Your task to perform on an android device: Show me recent news Image 0: 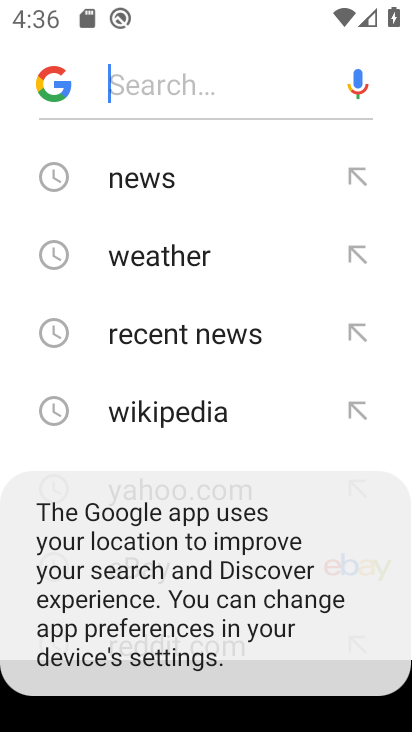
Step 0: press back button
Your task to perform on an android device: Show me recent news Image 1: 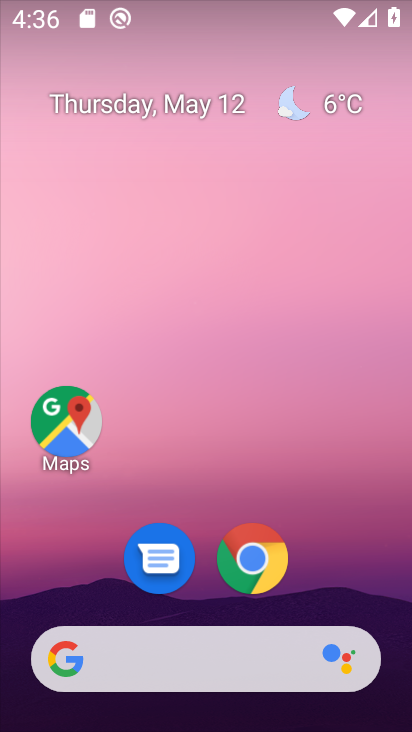
Step 1: drag from (381, 585) to (200, 29)
Your task to perform on an android device: Show me recent news Image 2: 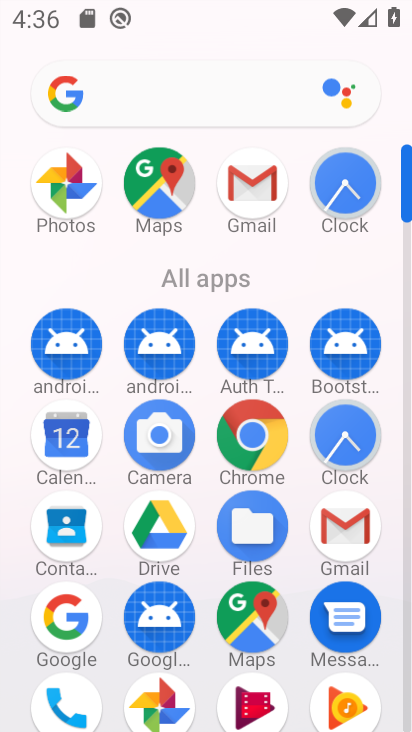
Step 2: drag from (0, 540) to (16, 202)
Your task to perform on an android device: Show me recent news Image 3: 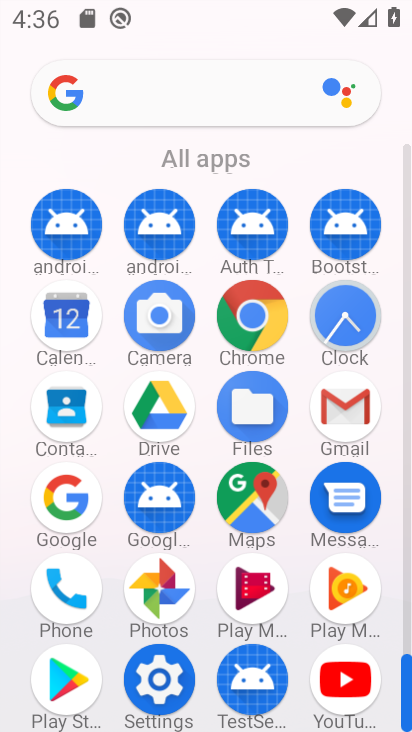
Step 3: drag from (23, 548) to (36, 227)
Your task to perform on an android device: Show me recent news Image 4: 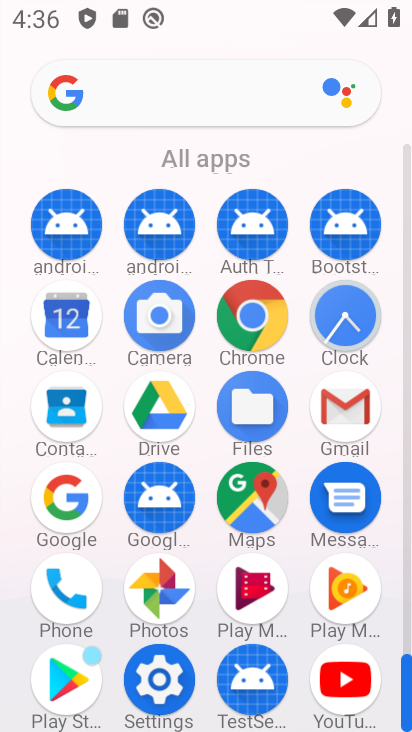
Step 4: drag from (13, 519) to (13, 5)
Your task to perform on an android device: Show me recent news Image 5: 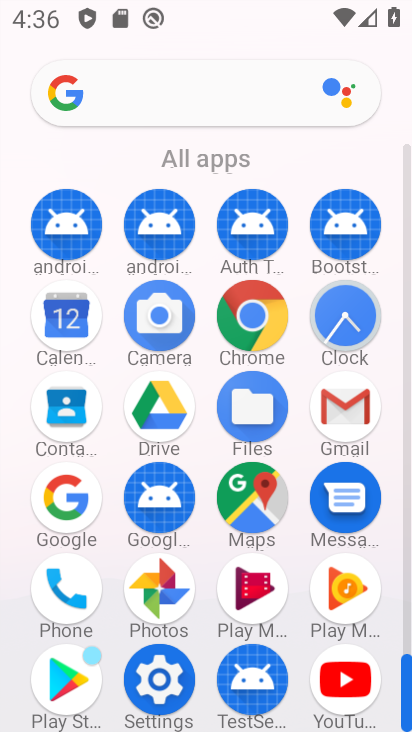
Step 5: drag from (18, 524) to (18, 284)
Your task to perform on an android device: Show me recent news Image 6: 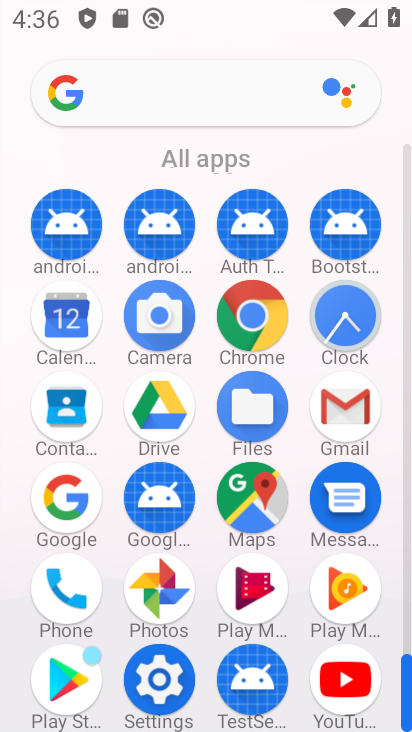
Step 6: click (256, 308)
Your task to perform on an android device: Show me recent news Image 7: 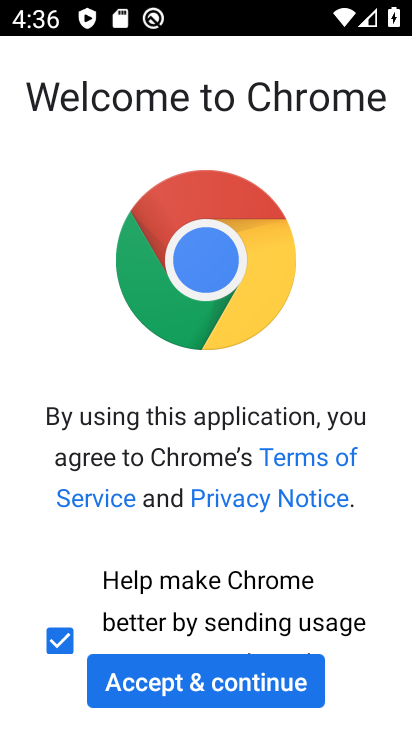
Step 7: click (226, 674)
Your task to perform on an android device: Show me recent news Image 8: 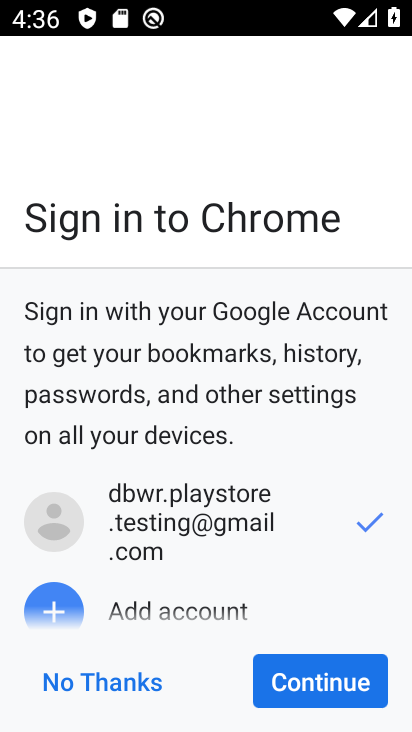
Step 8: click (288, 679)
Your task to perform on an android device: Show me recent news Image 9: 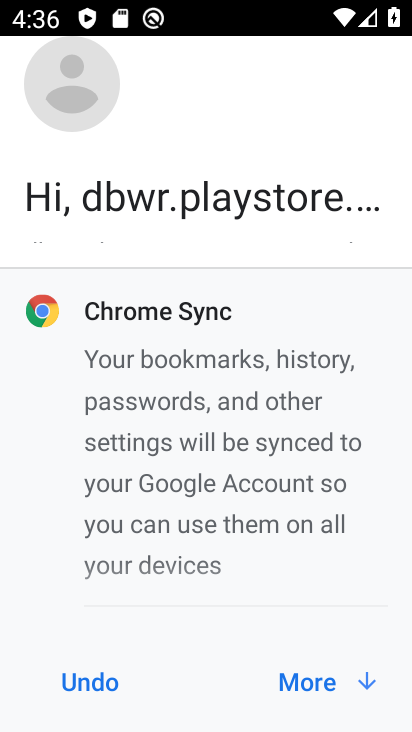
Step 9: click (304, 692)
Your task to perform on an android device: Show me recent news Image 10: 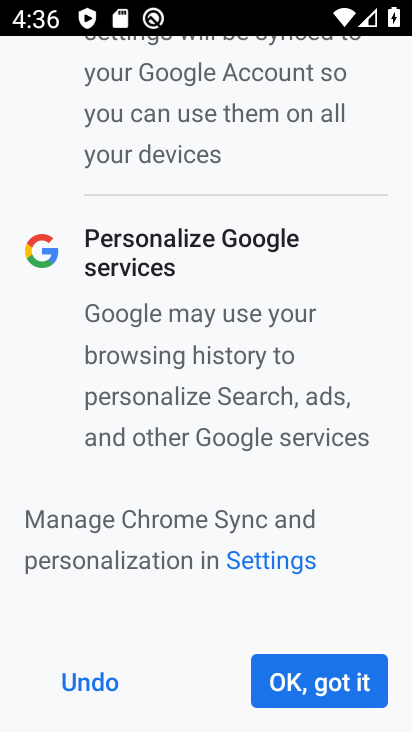
Step 10: click (309, 677)
Your task to perform on an android device: Show me recent news Image 11: 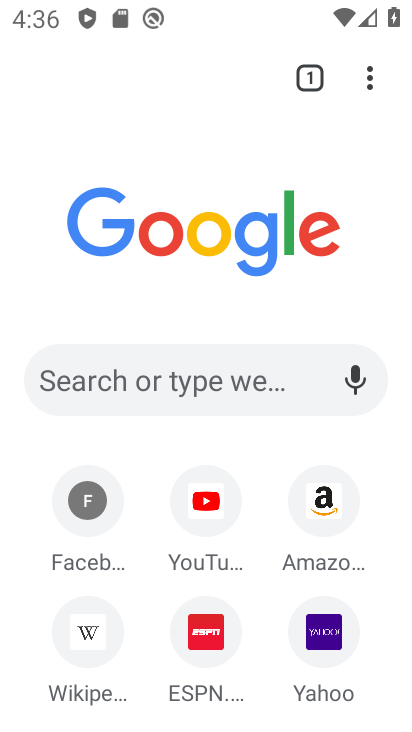
Step 11: click (210, 353)
Your task to perform on an android device: Show me recent news Image 12: 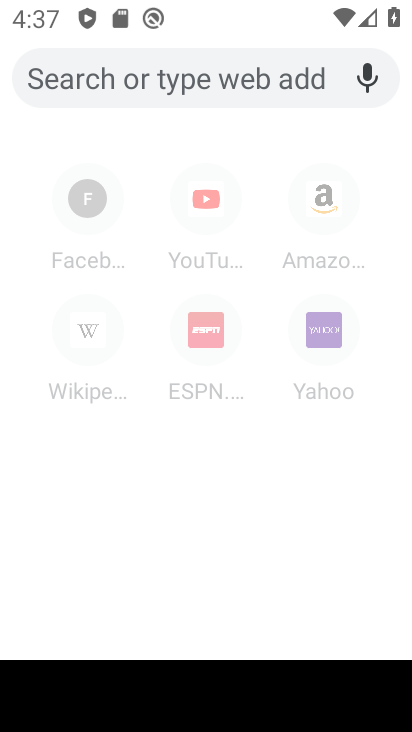
Step 12: type "Show me recent news"
Your task to perform on an android device: Show me recent news Image 13: 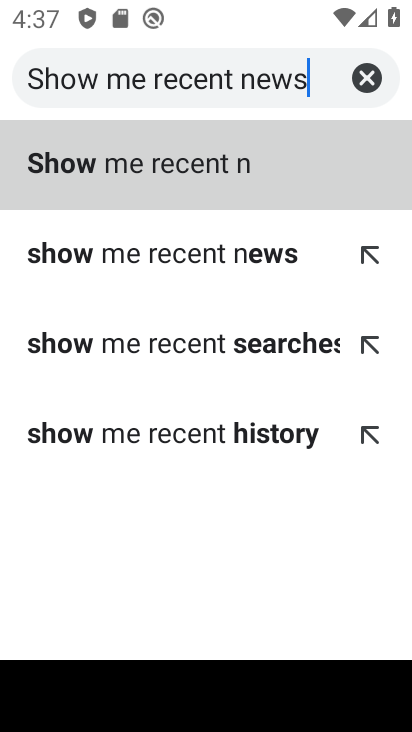
Step 13: type ""
Your task to perform on an android device: Show me recent news Image 14: 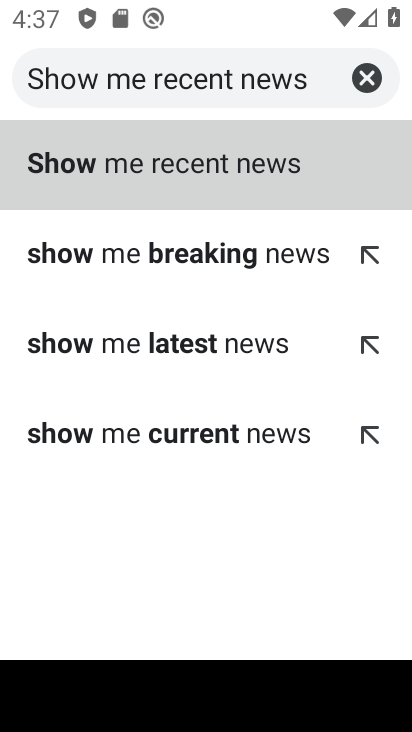
Step 14: click (135, 160)
Your task to perform on an android device: Show me recent news Image 15: 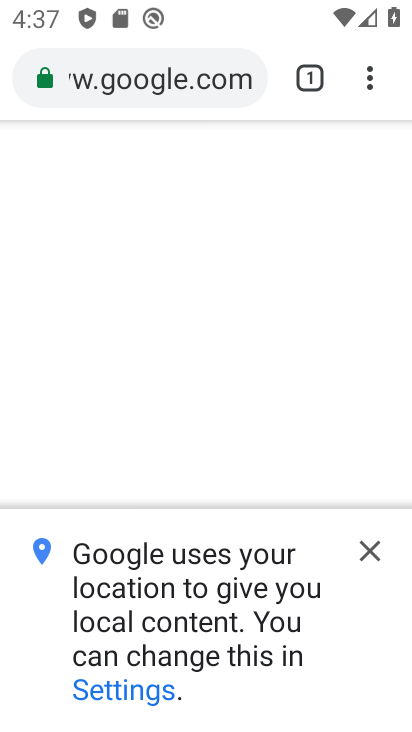
Step 15: click (364, 541)
Your task to perform on an android device: Show me recent news Image 16: 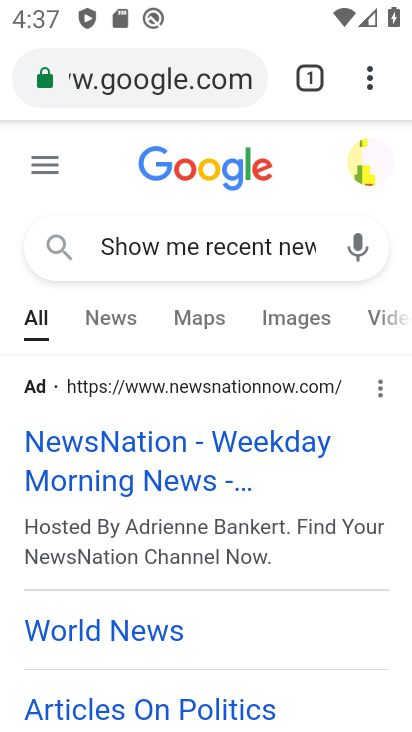
Step 16: click (116, 319)
Your task to perform on an android device: Show me recent news Image 17: 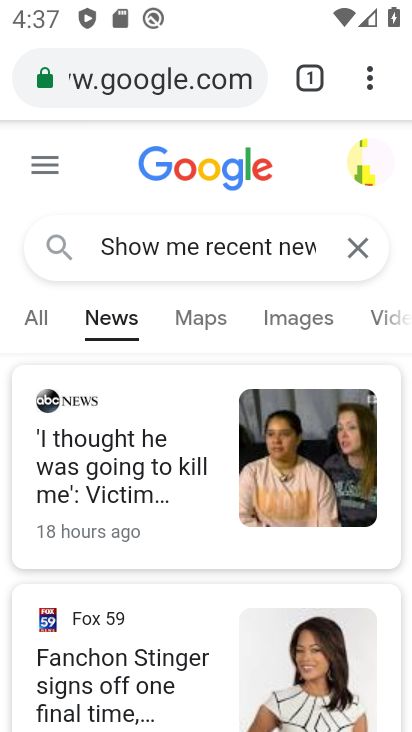
Step 17: task complete